Your task to perform on an android device: Open Maps and search for coffee Image 0: 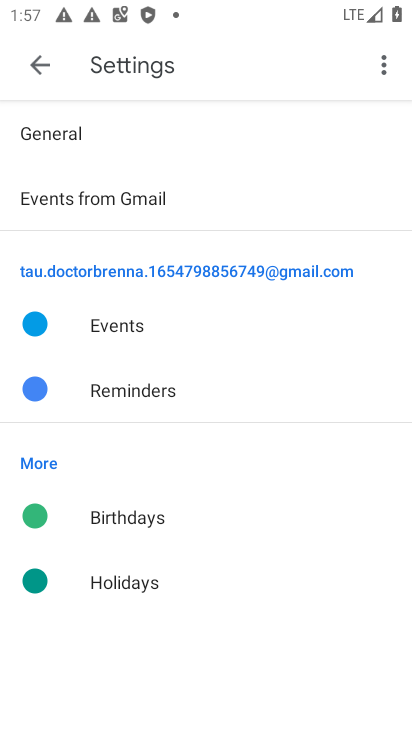
Step 0: press back button
Your task to perform on an android device: Open Maps and search for coffee Image 1: 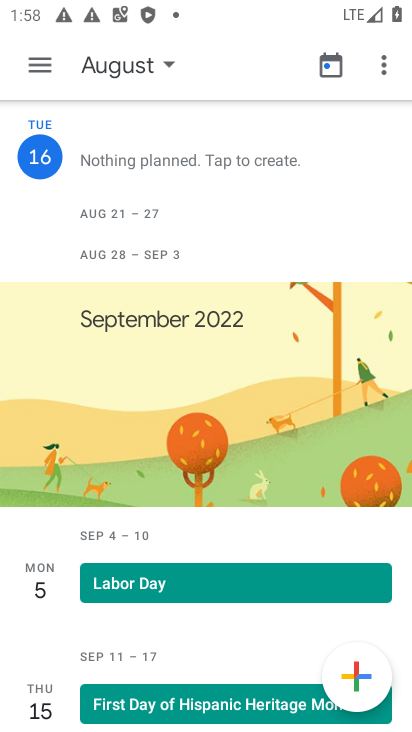
Step 1: press back button
Your task to perform on an android device: Open Maps and search for coffee Image 2: 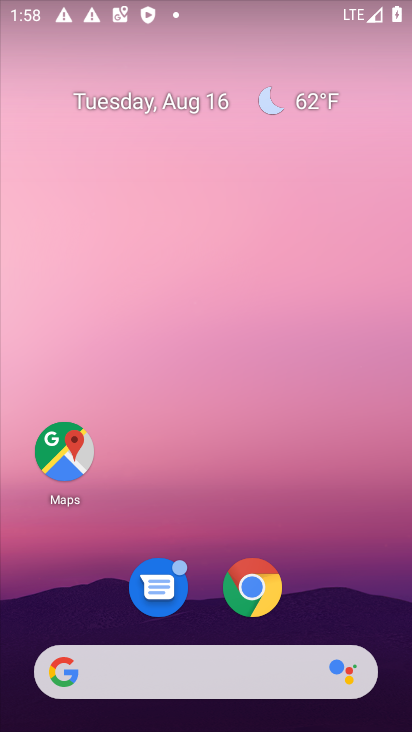
Step 2: click (57, 448)
Your task to perform on an android device: Open Maps and search for coffee Image 3: 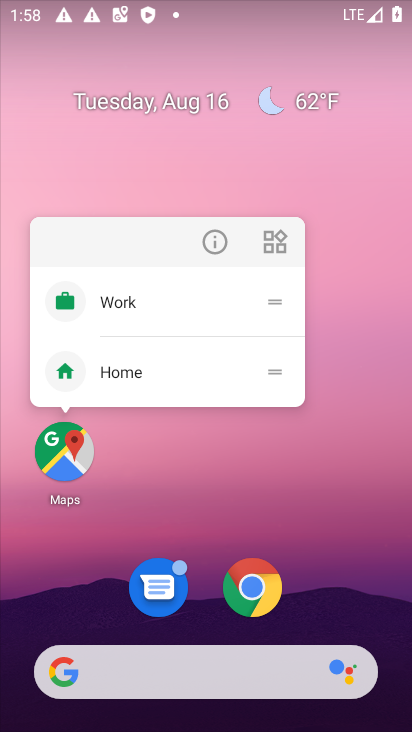
Step 3: click (61, 455)
Your task to perform on an android device: Open Maps and search for coffee Image 4: 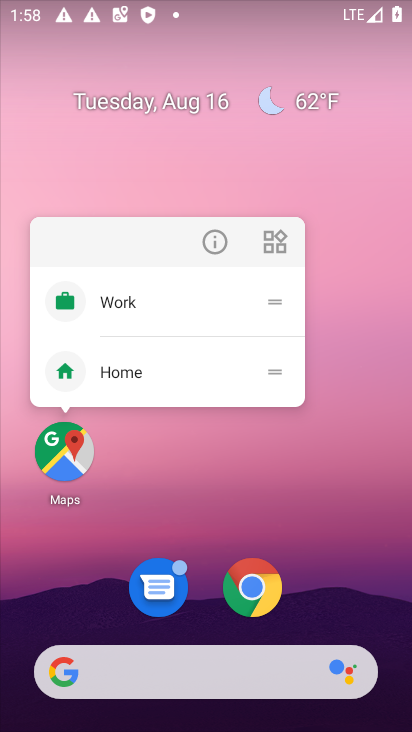
Step 4: click (61, 455)
Your task to perform on an android device: Open Maps and search for coffee Image 5: 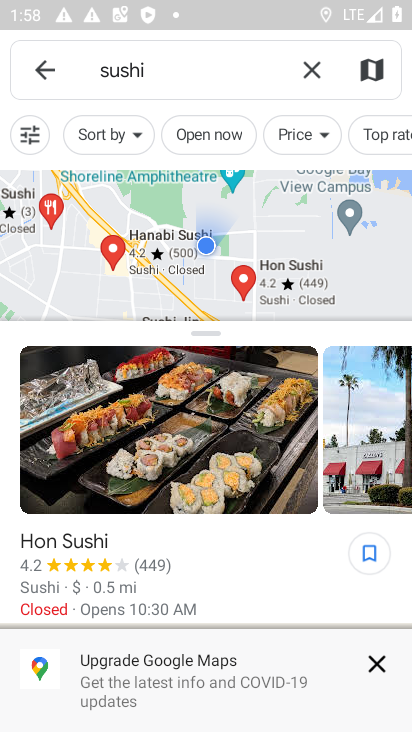
Step 5: click (304, 83)
Your task to perform on an android device: Open Maps and search for coffee Image 6: 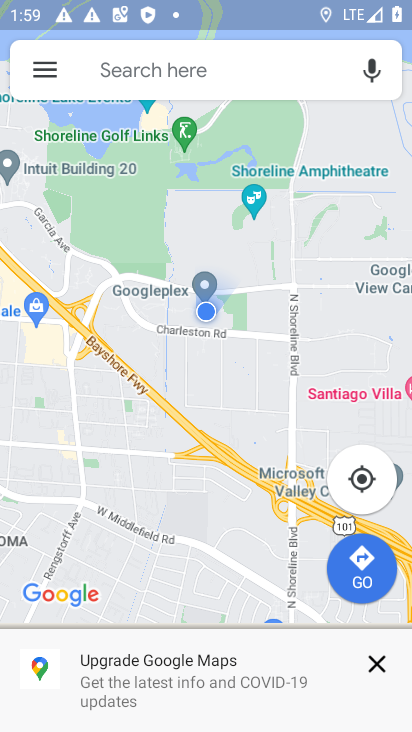
Step 6: click (182, 57)
Your task to perform on an android device: Open Maps and search for coffee Image 7: 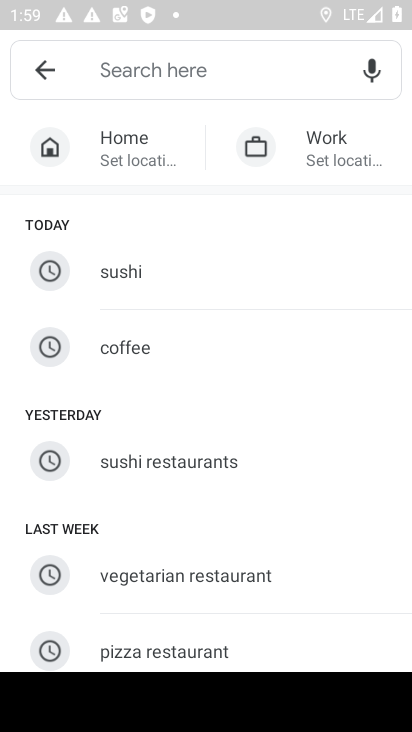
Step 7: click (138, 337)
Your task to perform on an android device: Open Maps and search for coffee Image 8: 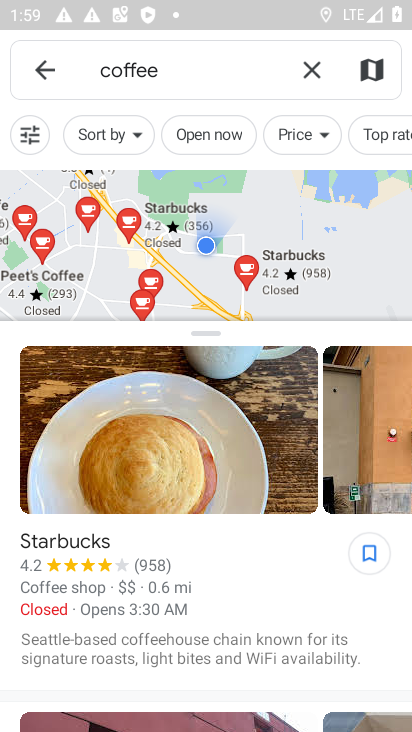
Step 8: task complete